Your task to perform on an android device: Open Chrome and go to settings Image 0: 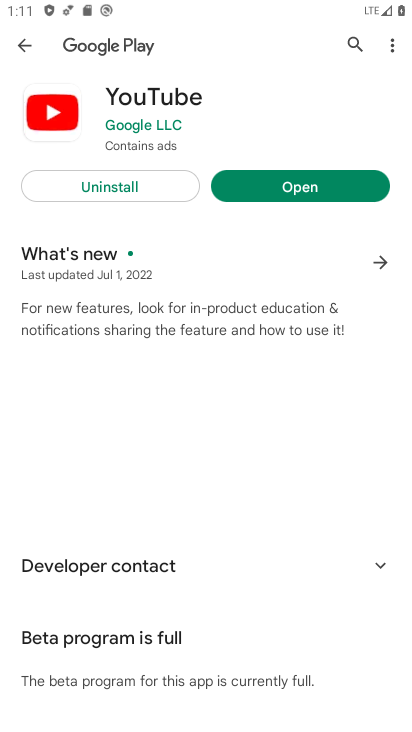
Step 0: drag from (373, 640) to (303, 67)
Your task to perform on an android device: Open Chrome and go to settings Image 1: 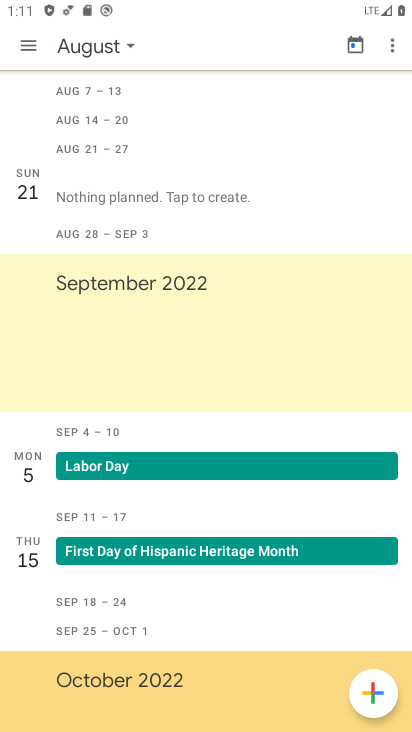
Step 1: press home button
Your task to perform on an android device: Open Chrome and go to settings Image 2: 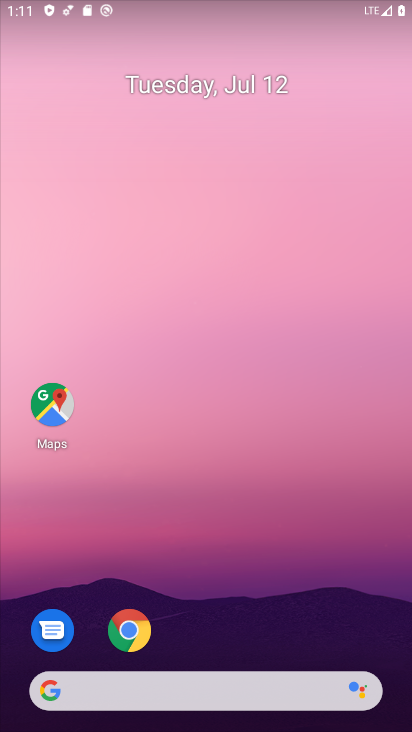
Step 2: click (131, 629)
Your task to perform on an android device: Open Chrome and go to settings Image 3: 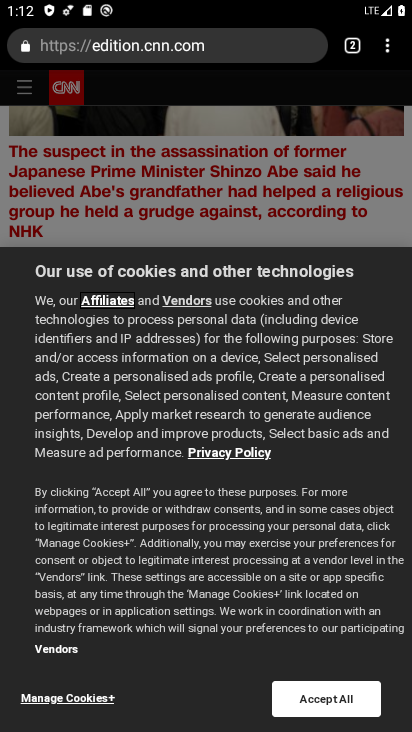
Step 3: click (388, 52)
Your task to perform on an android device: Open Chrome and go to settings Image 4: 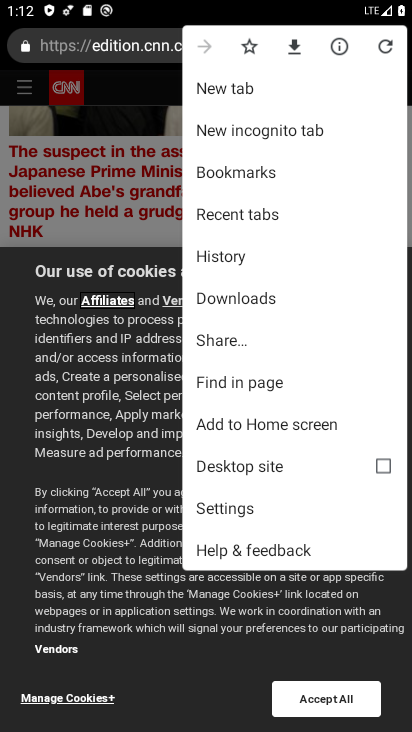
Step 4: click (235, 506)
Your task to perform on an android device: Open Chrome and go to settings Image 5: 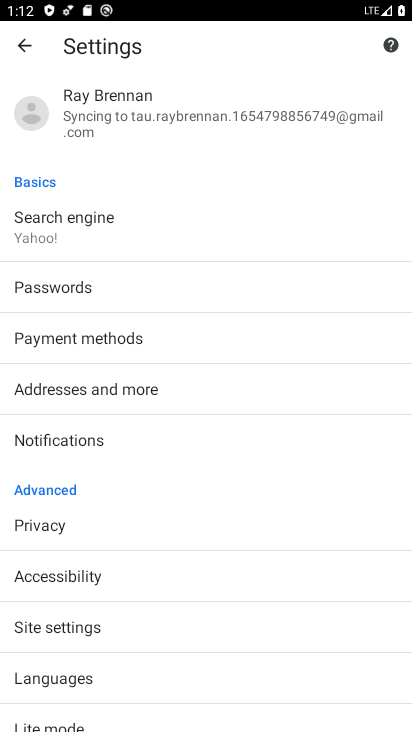
Step 5: task complete